Your task to perform on an android device: Open calendar and show me the first week of next month Image 0: 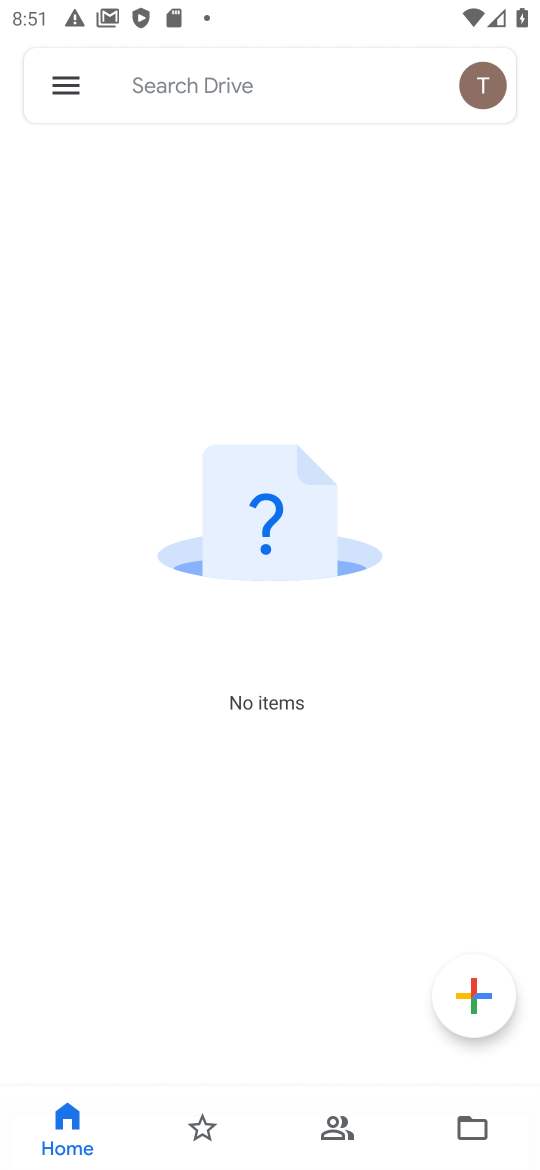
Step 0: press home button
Your task to perform on an android device: Open calendar and show me the first week of next month Image 1: 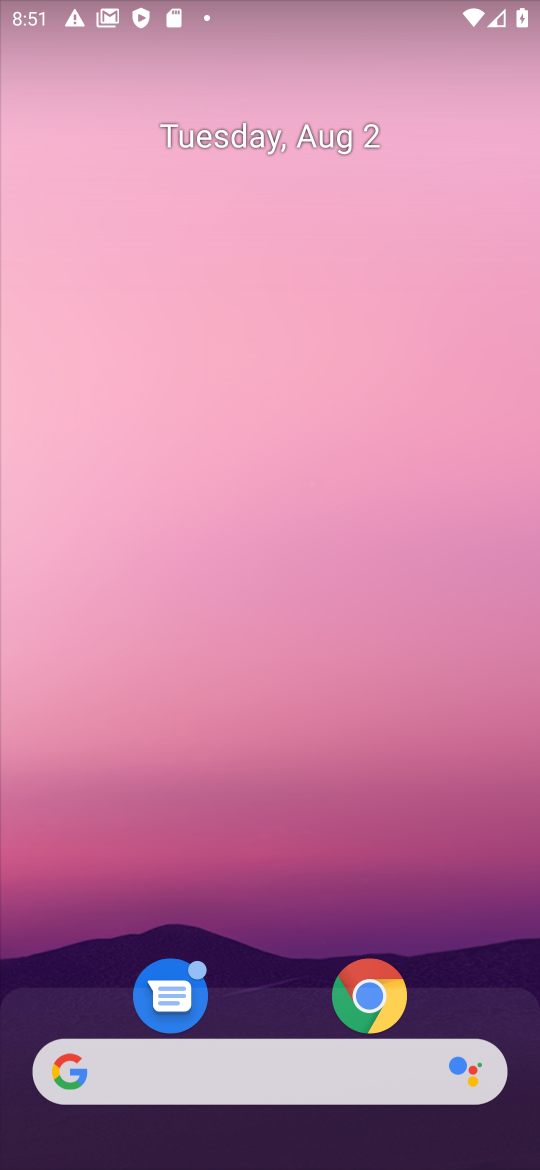
Step 1: drag from (275, 1005) to (319, 54)
Your task to perform on an android device: Open calendar and show me the first week of next month Image 2: 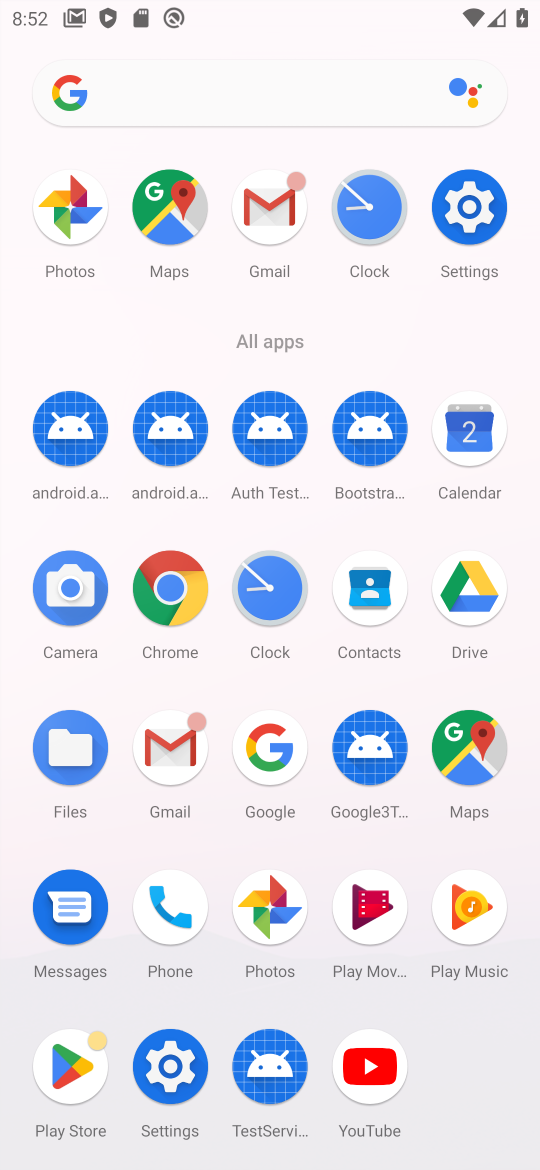
Step 2: drag from (219, 717) to (166, 274)
Your task to perform on an android device: Open calendar and show me the first week of next month Image 3: 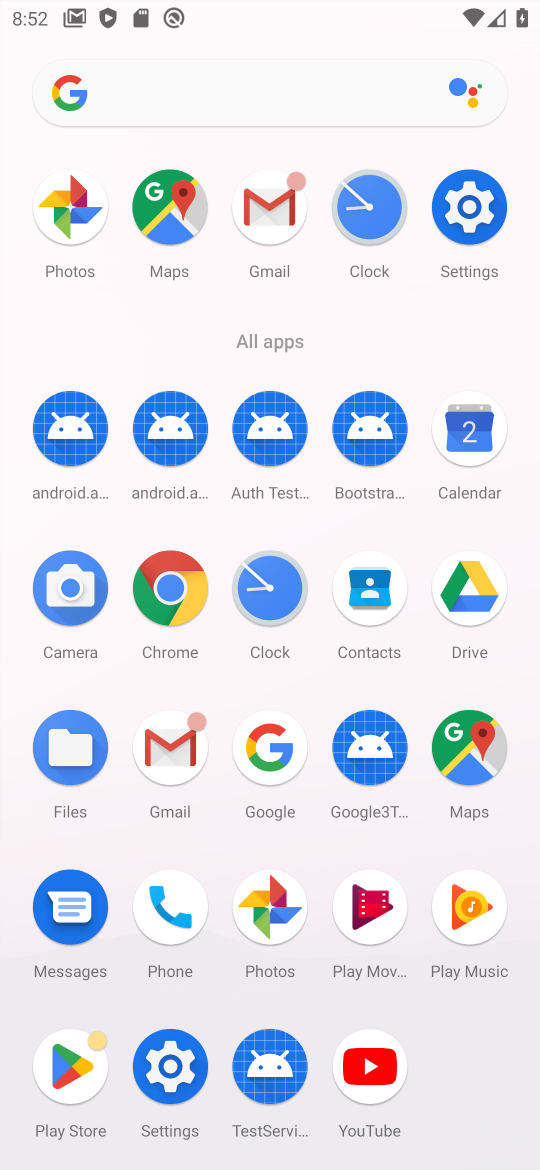
Step 3: click (479, 445)
Your task to perform on an android device: Open calendar and show me the first week of next month Image 4: 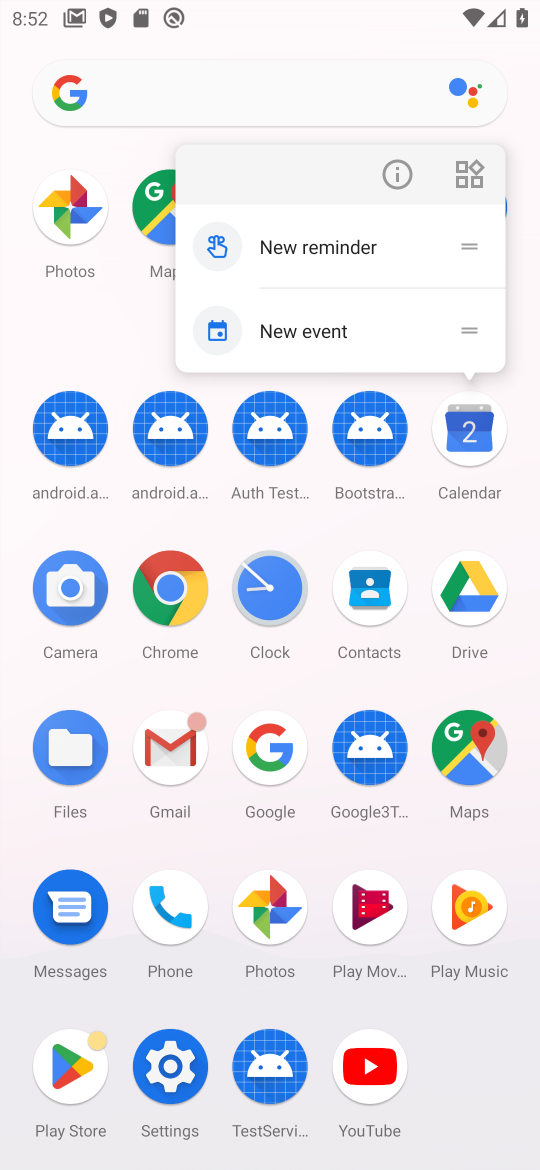
Step 4: click (479, 445)
Your task to perform on an android device: Open calendar and show me the first week of next month Image 5: 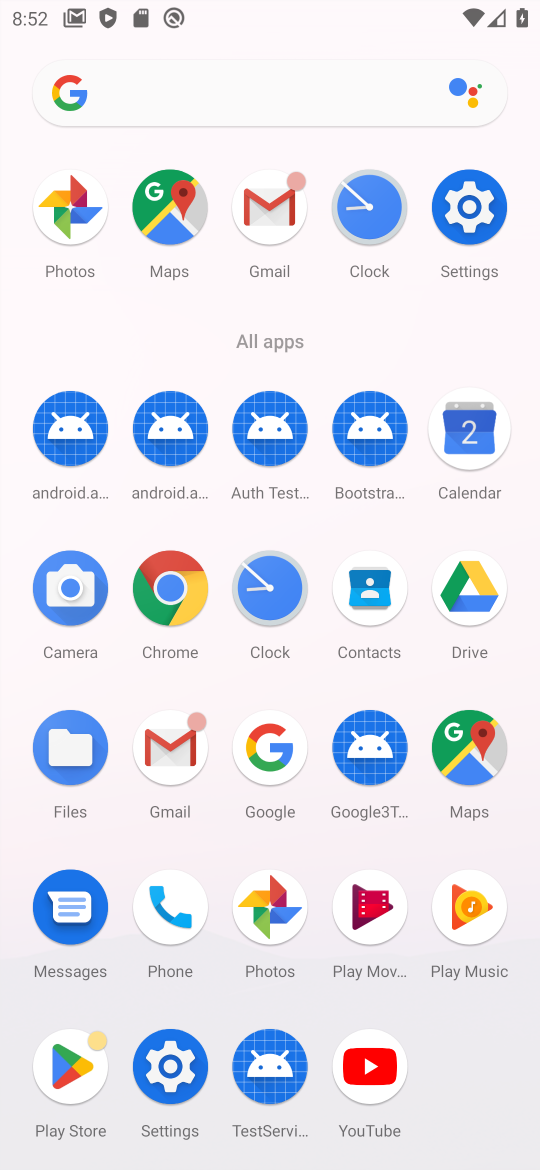
Step 5: click (465, 421)
Your task to perform on an android device: Open calendar and show me the first week of next month Image 6: 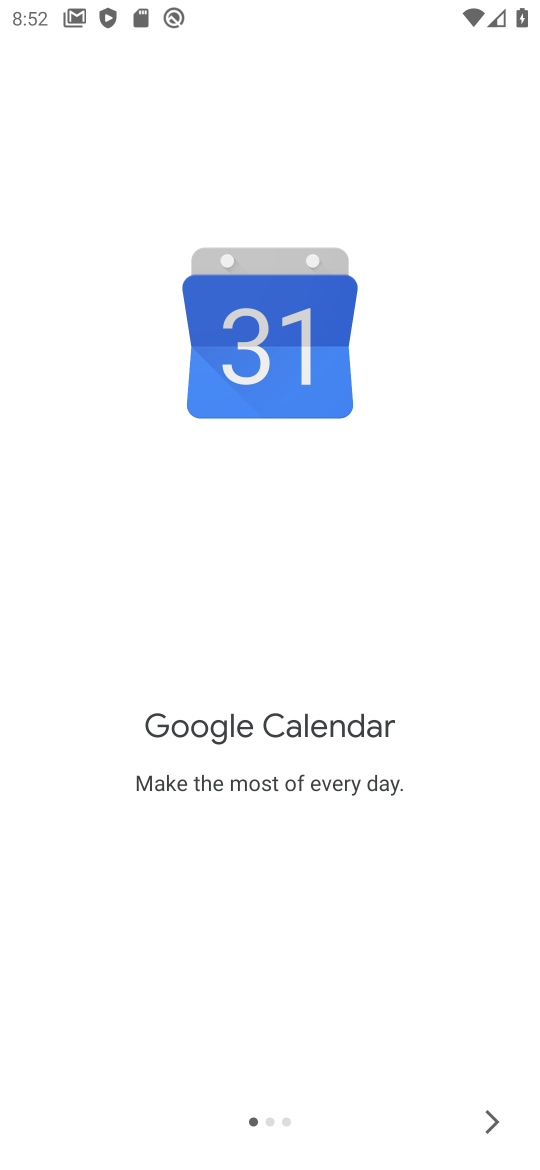
Step 6: click (485, 1114)
Your task to perform on an android device: Open calendar and show me the first week of next month Image 7: 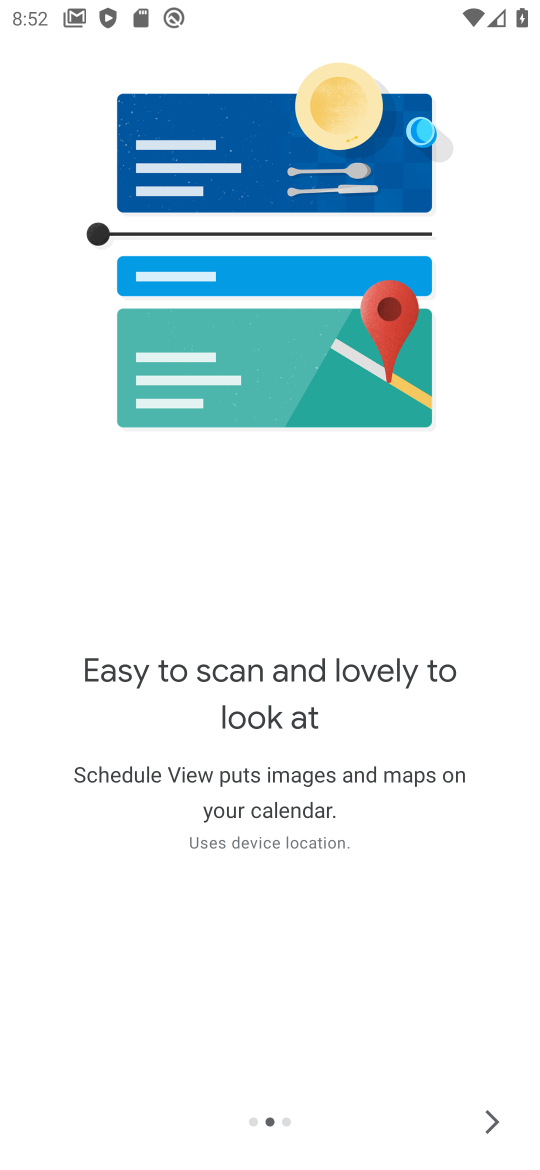
Step 7: click (495, 1122)
Your task to perform on an android device: Open calendar and show me the first week of next month Image 8: 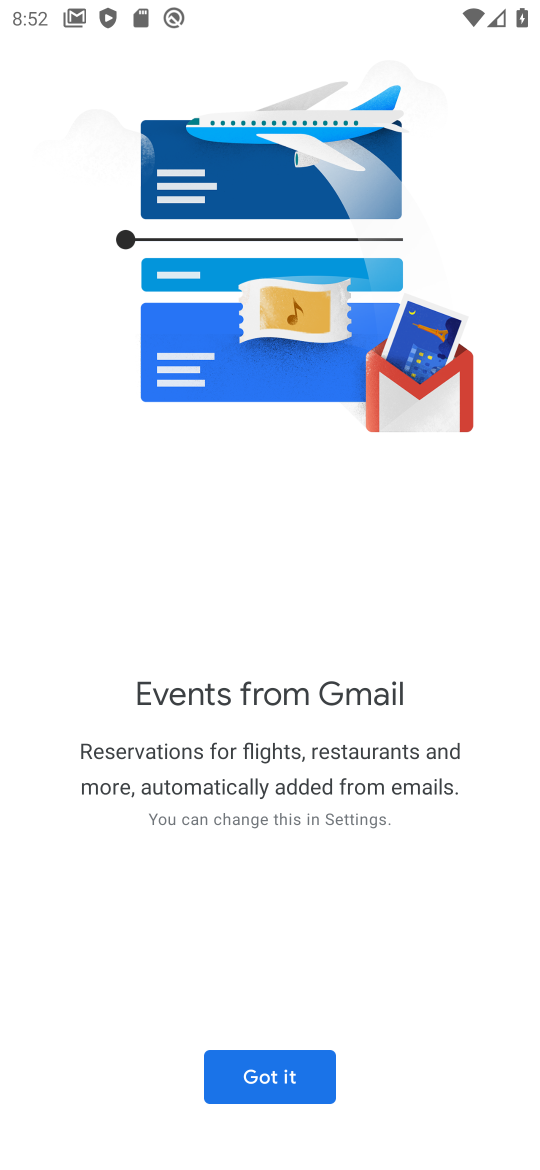
Step 8: click (287, 1074)
Your task to perform on an android device: Open calendar and show me the first week of next month Image 9: 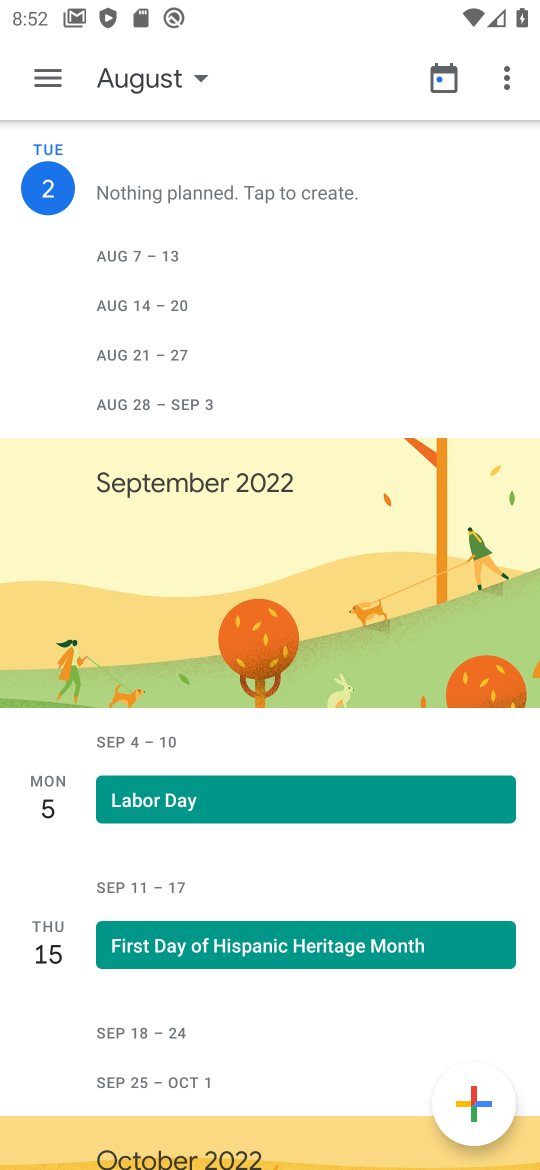
Step 9: click (191, 66)
Your task to perform on an android device: Open calendar and show me the first week of next month Image 10: 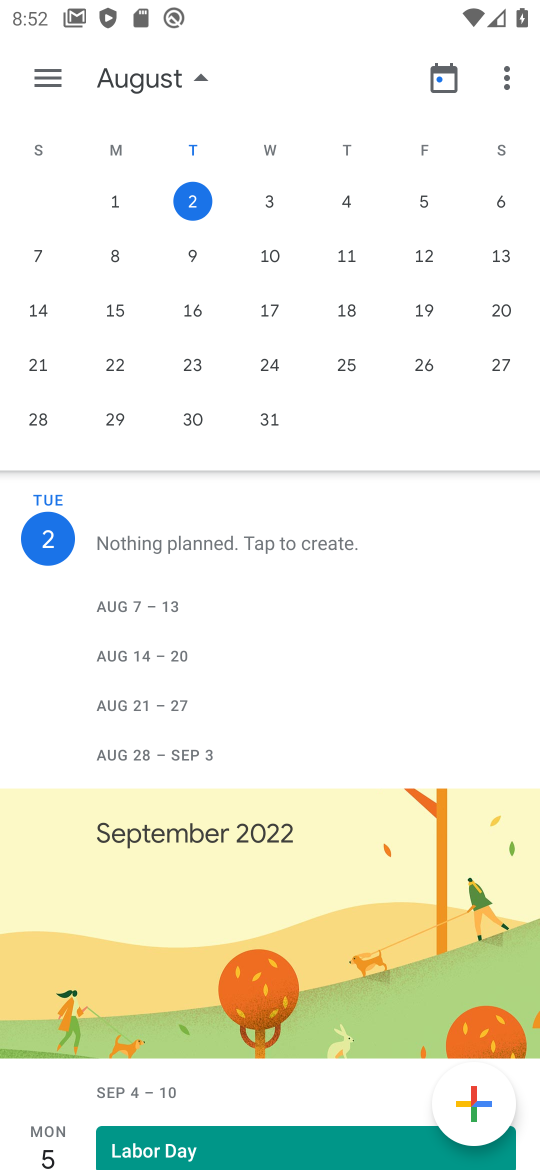
Step 10: drag from (436, 229) to (19, 155)
Your task to perform on an android device: Open calendar and show me the first week of next month Image 11: 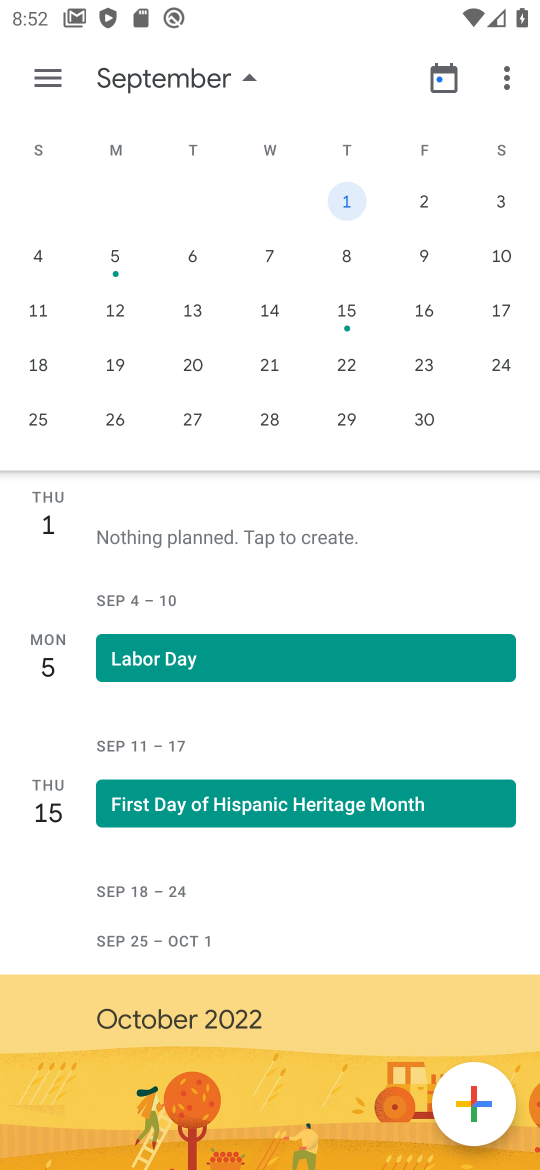
Step 11: click (182, 257)
Your task to perform on an android device: Open calendar and show me the first week of next month Image 12: 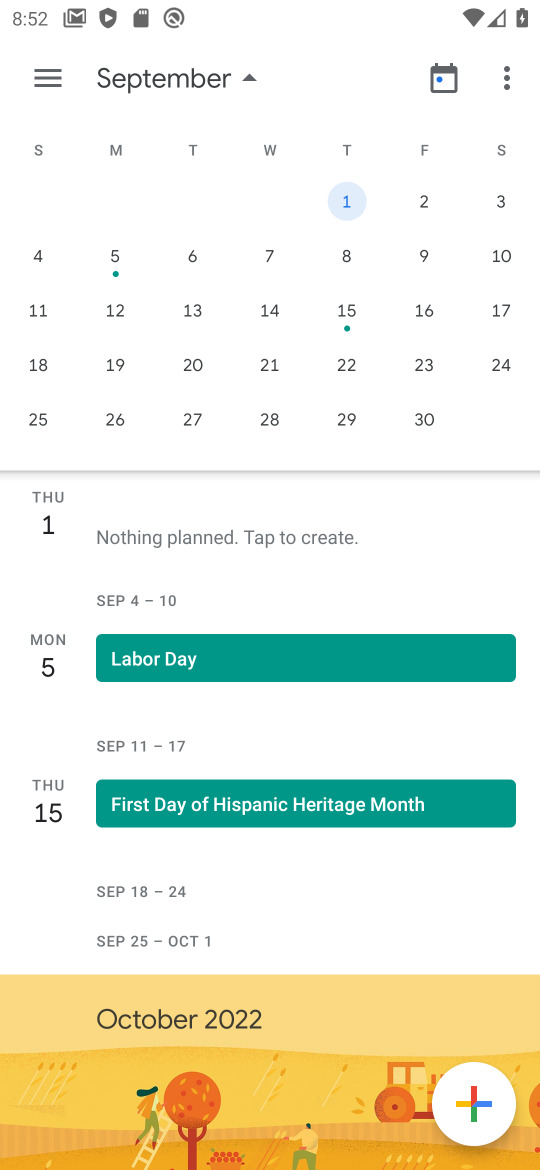
Step 12: click (121, 239)
Your task to perform on an android device: Open calendar and show me the first week of next month Image 13: 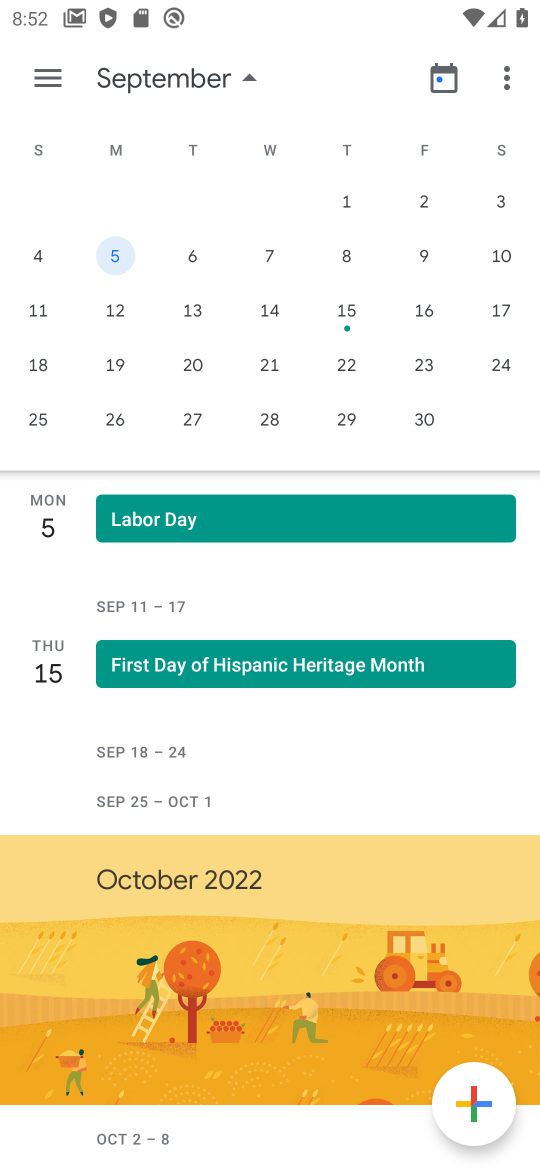
Step 13: task complete